Your task to perform on an android device: uninstall "Microsoft Authenticator" Image 0: 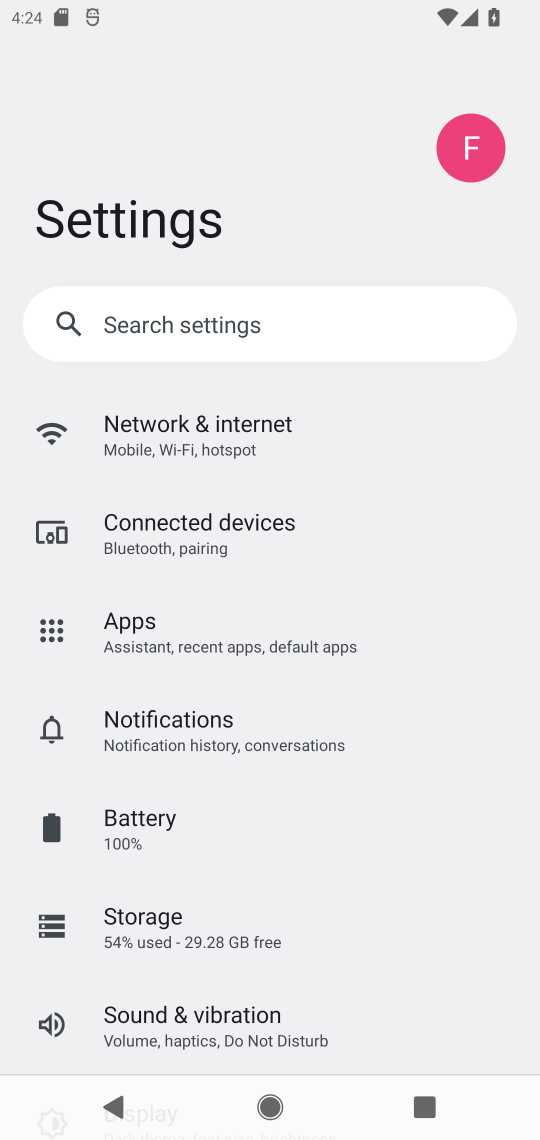
Step 0: press home button
Your task to perform on an android device: uninstall "Microsoft Authenticator" Image 1: 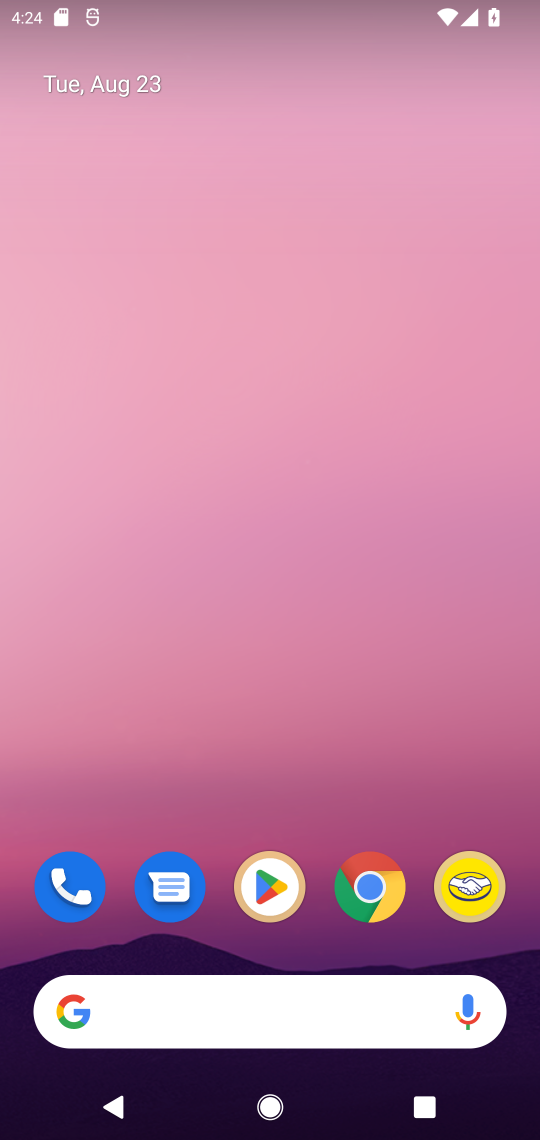
Step 1: click (262, 883)
Your task to perform on an android device: uninstall "Microsoft Authenticator" Image 2: 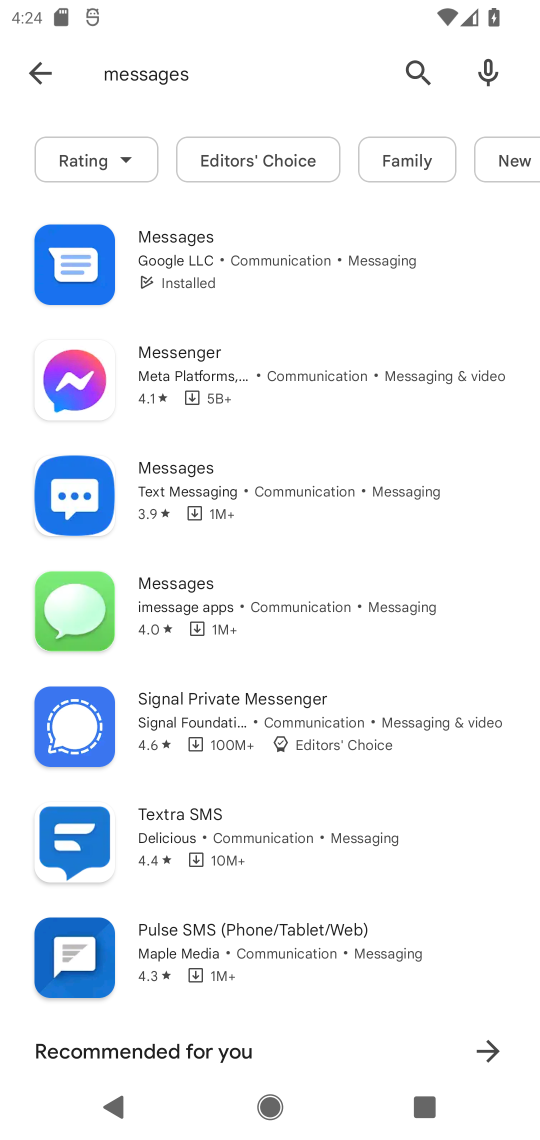
Step 2: click (25, 70)
Your task to perform on an android device: uninstall "Microsoft Authenticator" Image 3: 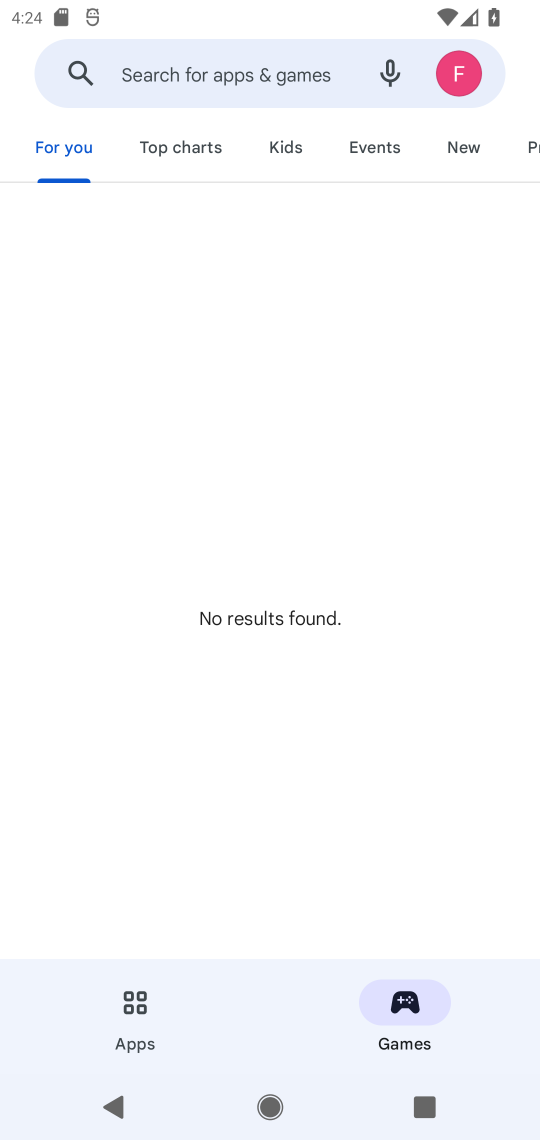
Step 3: click (167, 72)
Your task to perform on an android device: uninstall "Microsoft Authenticator" Image 4: 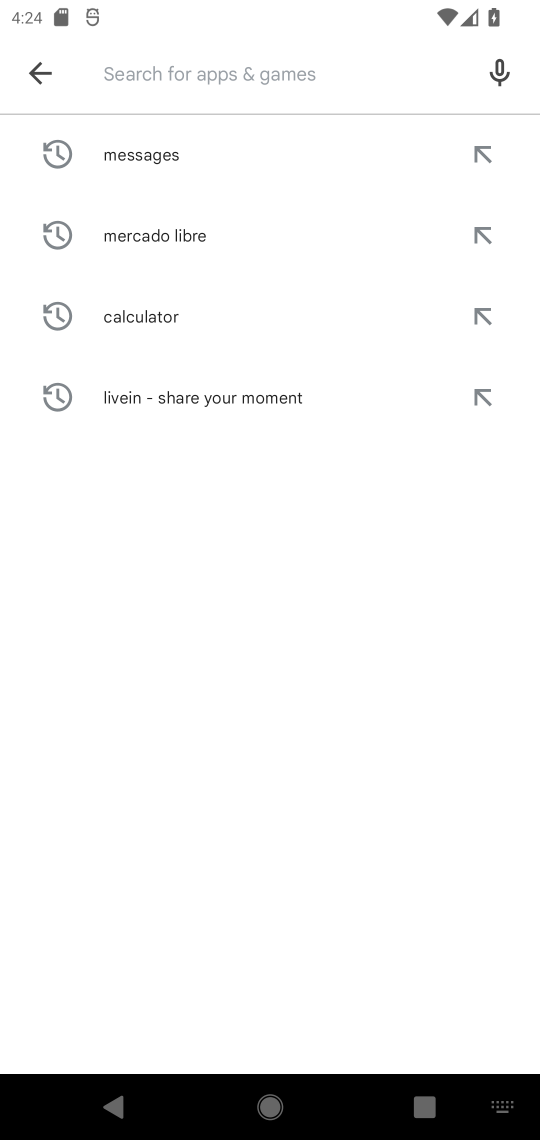
Step 4: type "Microsoft Authenticator"
Your task to perform on an android device: uninstall "Microsoft Authenticator" Image 5: 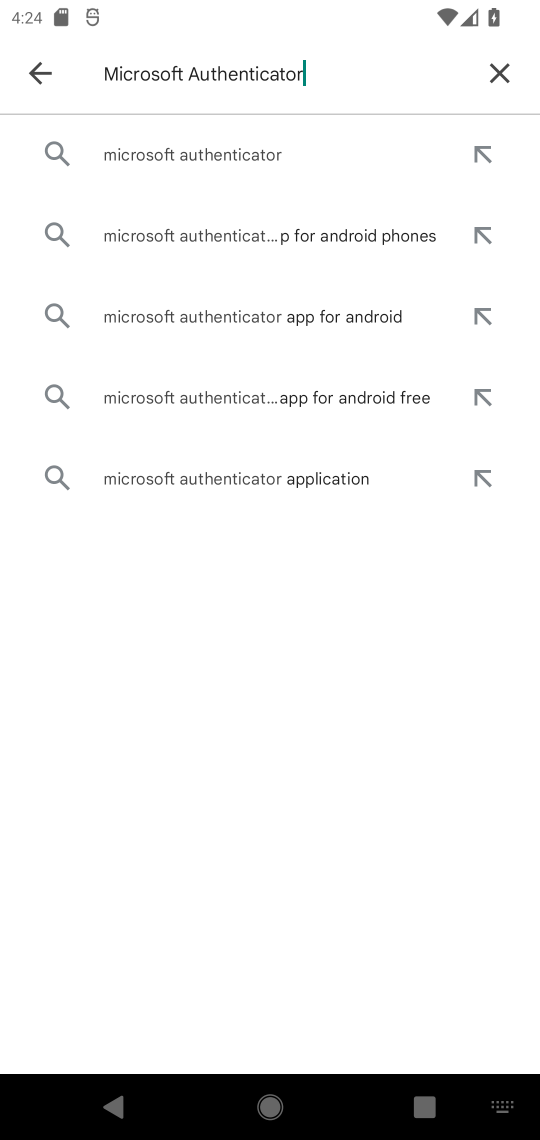
Step 5: click (183, 156)
Your task to perform on an android device: uninstall "Microsoft Authenticator" Image 6: 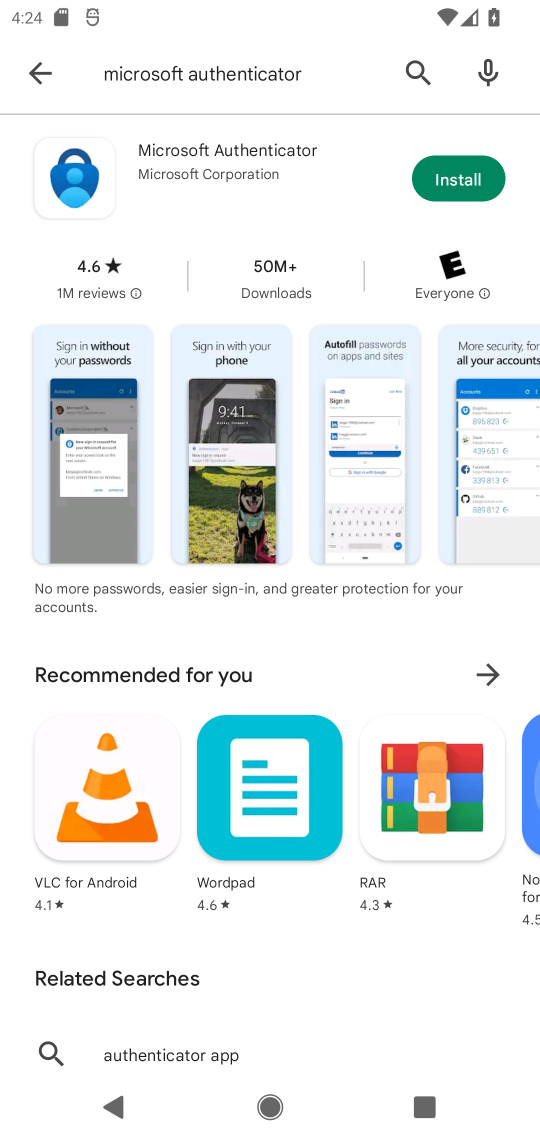
Step 6: task complete